Your task to perform on an android device: turn off picture-in-picture Image 0: 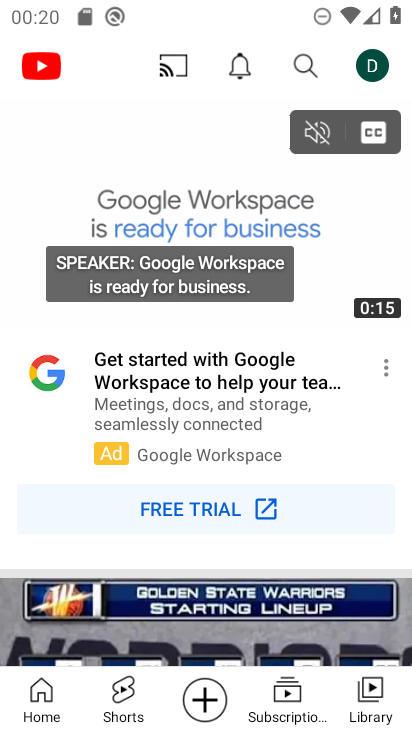
Step 0: press home button
Your task to perform on an android device: turn off picture-in-picture Image 1: 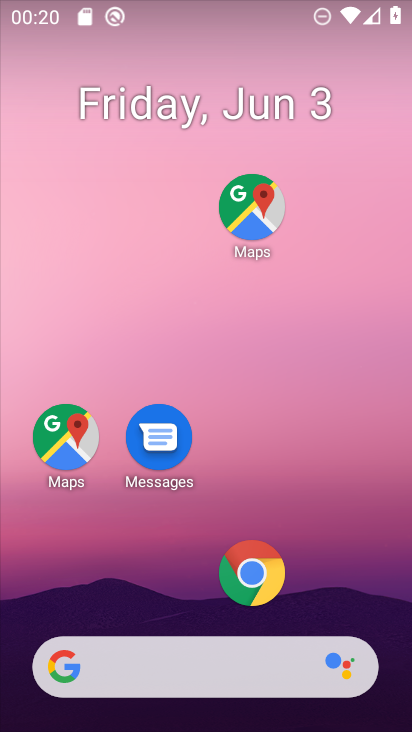
Step 1: drag from (335, 540) to (321, 213)
Your task to perform on an android device: turn off picture-in-picture Image 2: 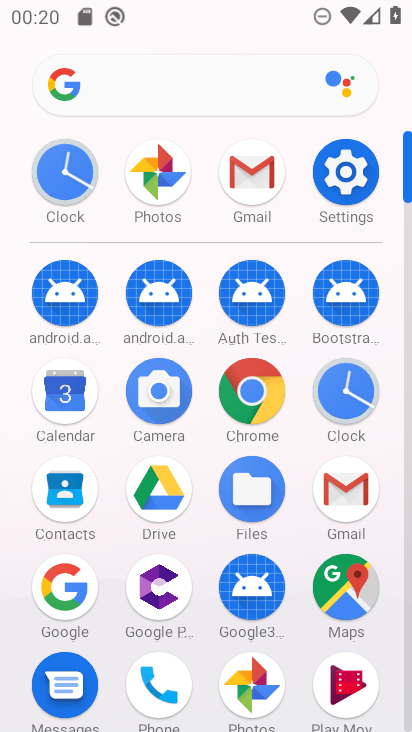
Step 2: click (367, 155)
Your task to perform on an android device: turn off picture-in-picture Image 3: 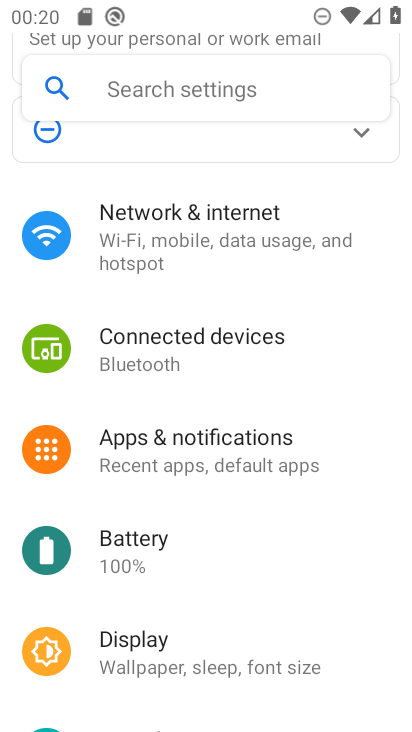
Step 3: click (171, 443)
Your task to perform on an android device: turn off picture-in-picture Image 4: 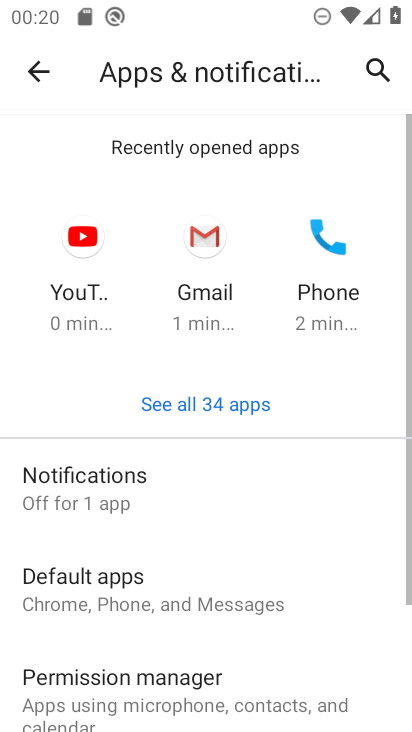
Step 4: drag from (231, 577) to (184, 260)
Your task to perform on an android device: turn off picture-in-picture Image 5: 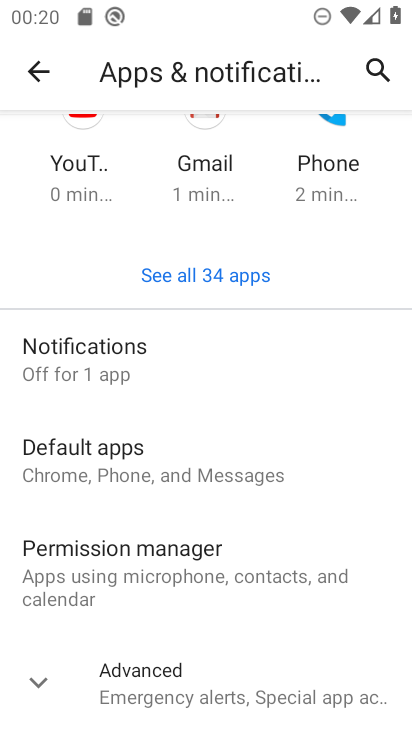
Step 5: click (233, 681)
Your task to perform on an android device: turn off picture-in-picture Image 6: 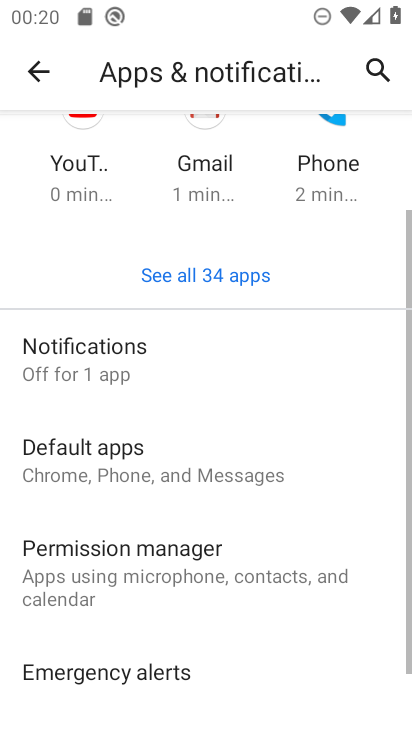
Step 6: drag from (253, 585) to (263, 292)
Your task to perform on an android device: turn off picture-in-picture Image 7: 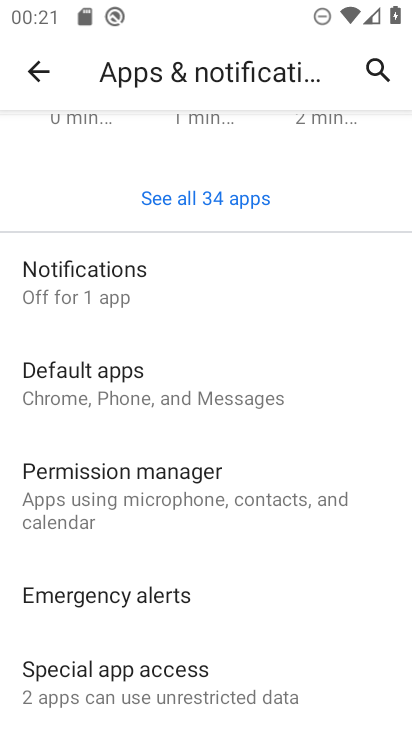
Step 7: click (172, 675)
Your task to perform on an android device: turn off picture-in-picture Image 8: 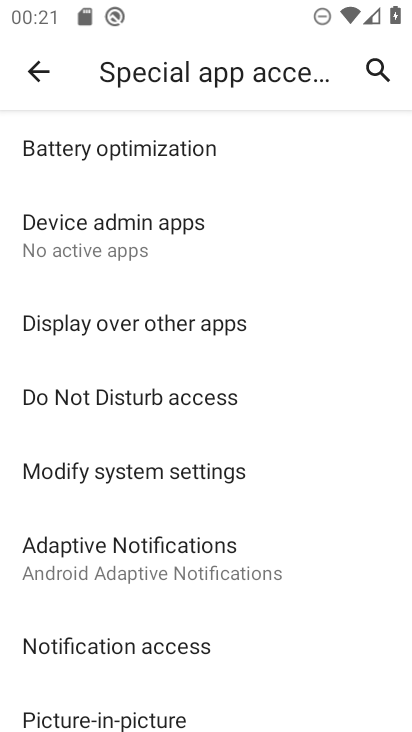
Step 8: click (141, 713)
Your task to perform on an android device: turn off picture-in-picture Image 9: 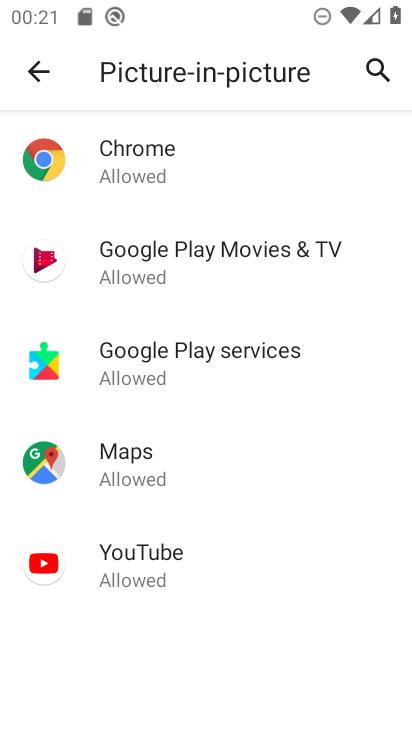
Step 9: click (154, 182)
Your task to perform on an android device: turn off picture-in-picture Image 10: 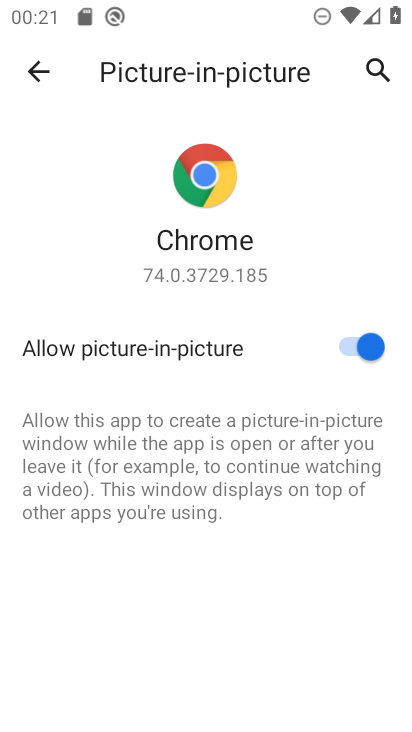
Step 10: click (346, 352)
Your task to perform on an android device: turn off picture-in-picture Image 11: 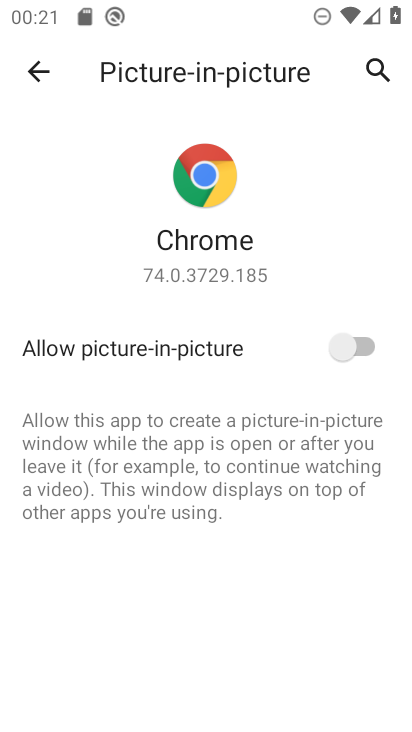
Step 11: click (29, 80)
Your task to perform on an android device: turn off picture-in-picture Image 12: 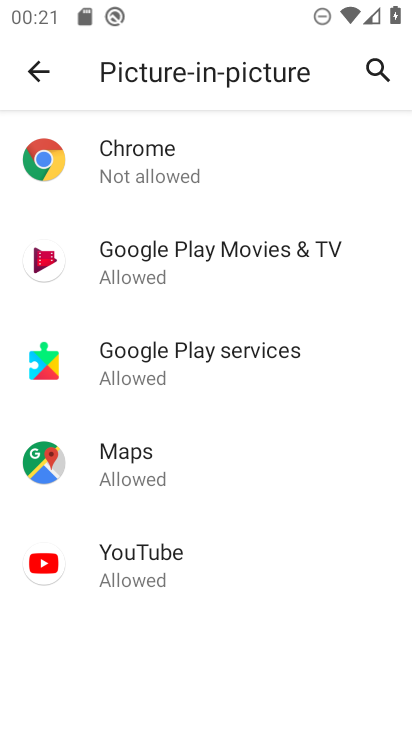
Step 12: click (194, 251)
Your task to perform on an android device: turn off picture-in-picture Image 13: 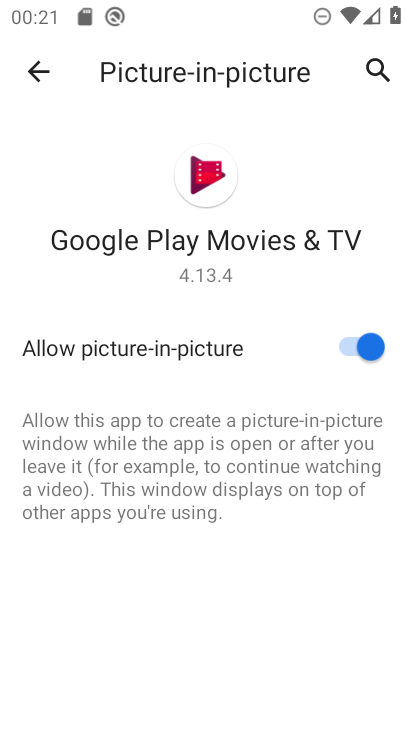
Step 13: click (357, 349)
Your task to perform on an android device: turn off picture-in-picture Image 14: 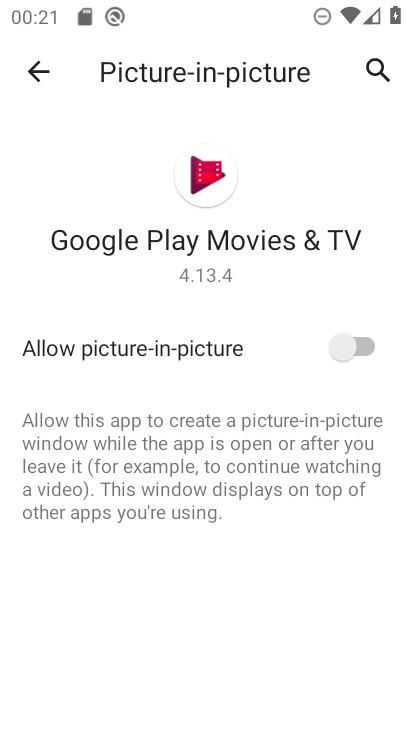
Step 14: click (47, 73)
Your task to perform on an android device: turn off picture-in-picture Image 15: 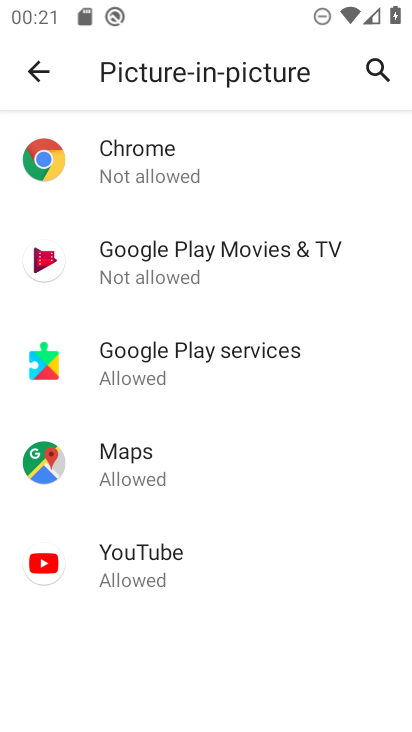
Step 15: click (242, 352)
Your task to perform on an android device: turn off picture-in-picture Image 16: 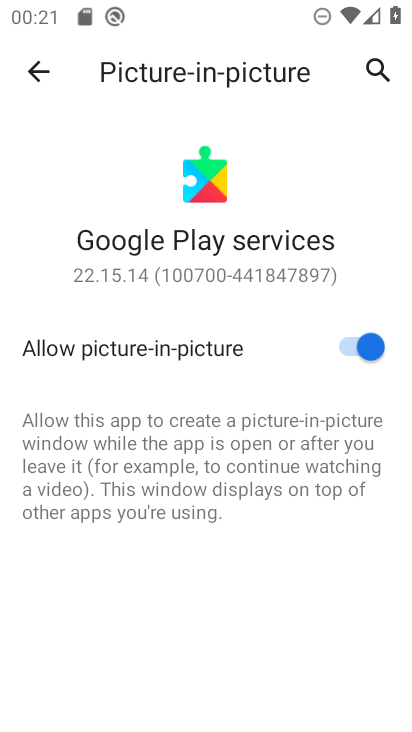
Step 16: click (349, 343)
Your task to perform on an android device: turn off picture-in-picture Image 17: 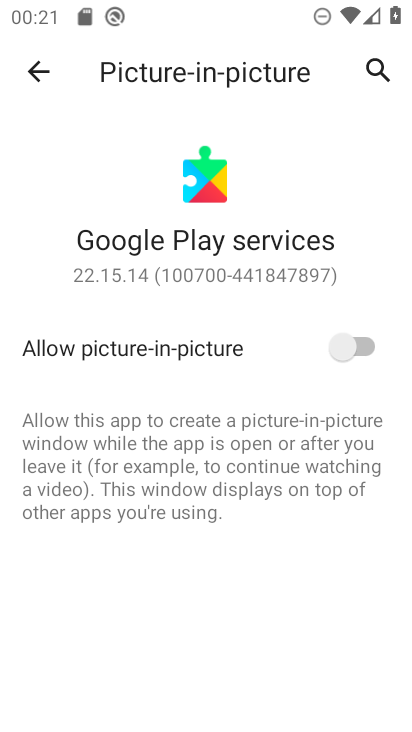
Step 17: click (43, 72)
Your task to perform on an android device: turn off picture-in-picture Image 18: 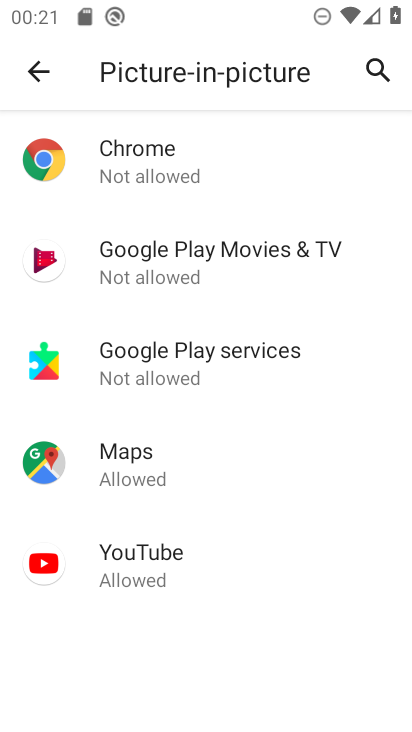
Step 18: click (201, 466)
Your task to perform on an android device: turn off picture-in-picture Image 19: 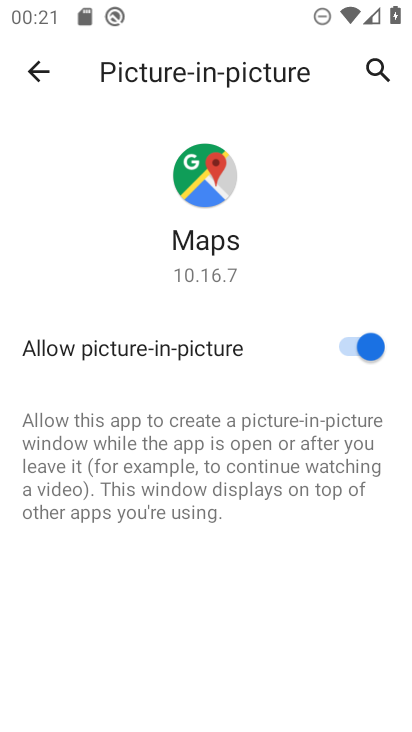
Step 19: click (350, 341)
Your task to perform on an android device: turn off picture-in-picture Image 20: 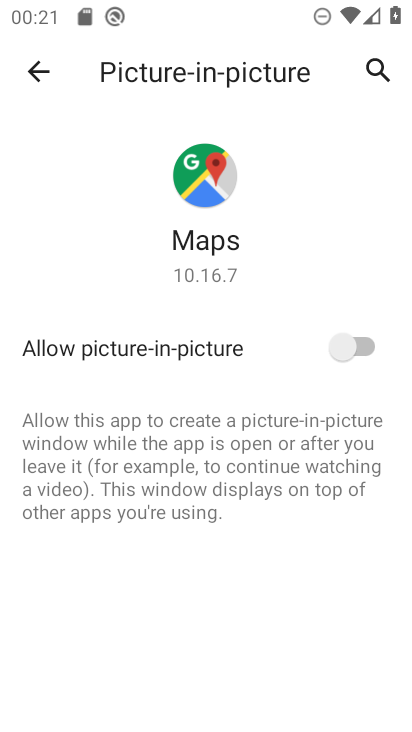
Step 20: click (40, 70)
Your task to perform on an android device: turn off picture-in-picture Image 21: 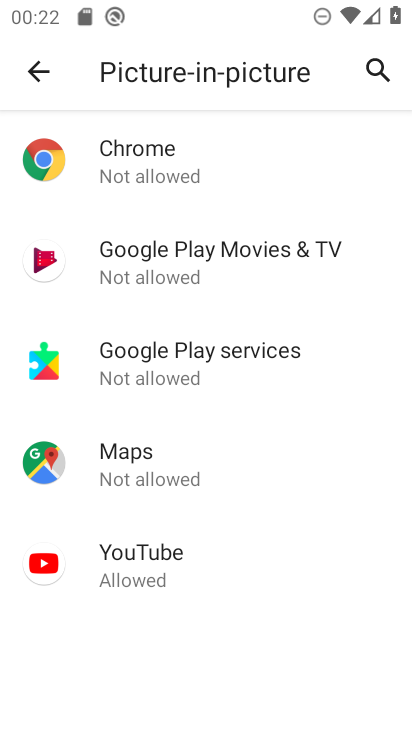
Step 21: click (149, 544)
Your task to perform on an android device: turn off picture-in-picture Image 22: 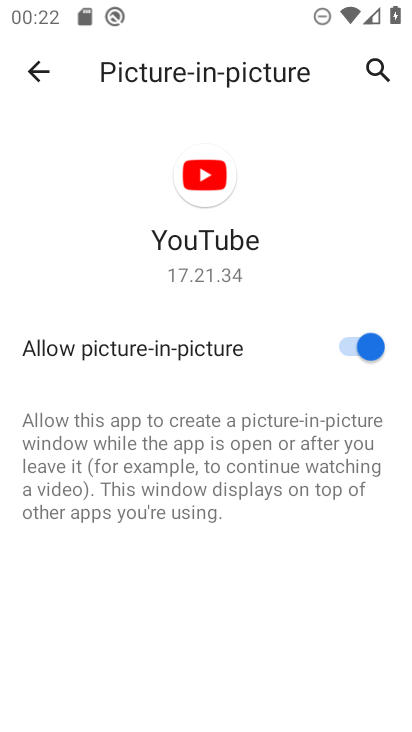
Step 22: click (342, 342)
Your task to perform on an android device: turn off picture-in-picture Image 23: 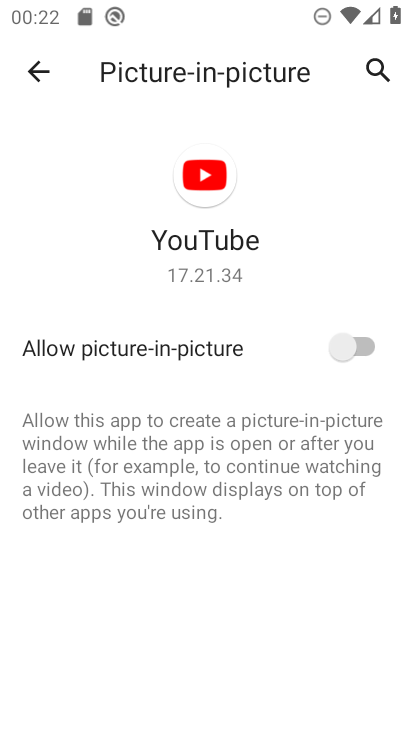
Step 23: task complete